Your task to perform on an android device: turn off javascript in the chrome app Image 0: 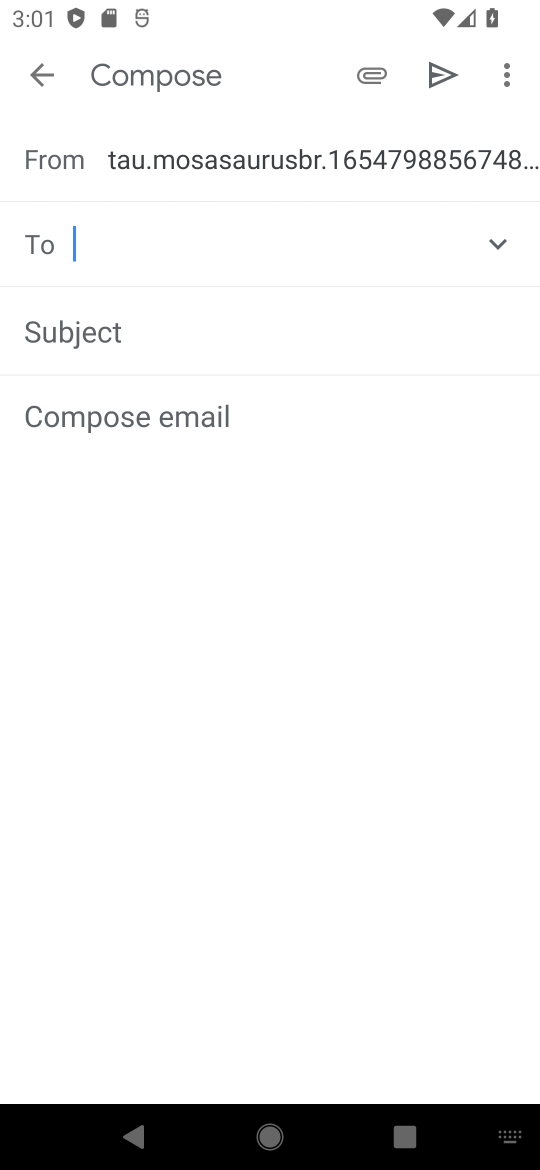
Step 0: press home button
Your task to perform on an android device: turn off javascript in the chrome app Image 1: 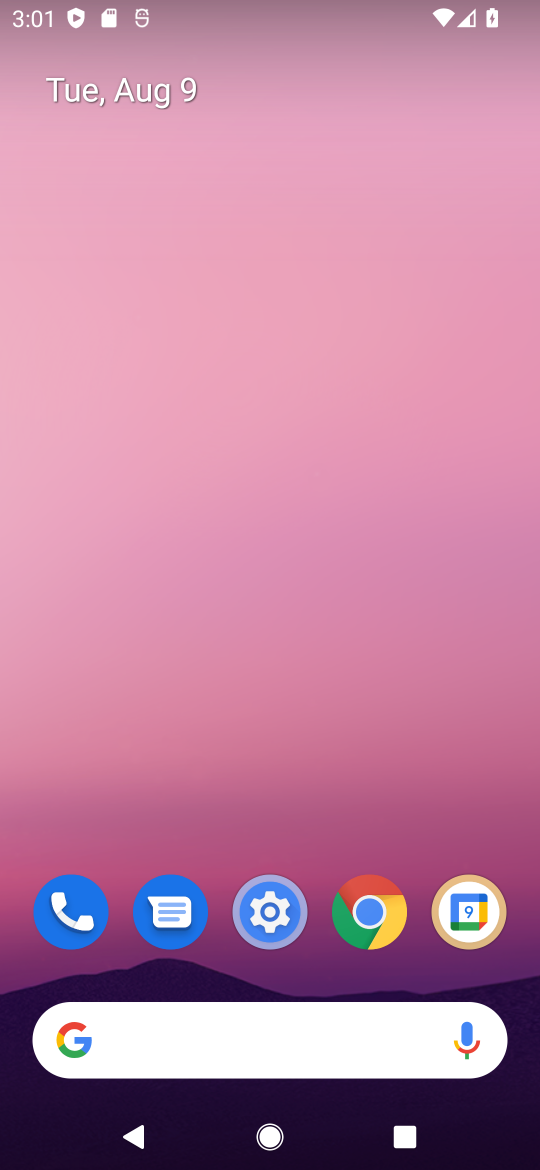
Step 1: click (359, 913)
Your task to perform on an android device: turn off javascript in the chrome app Image 2: 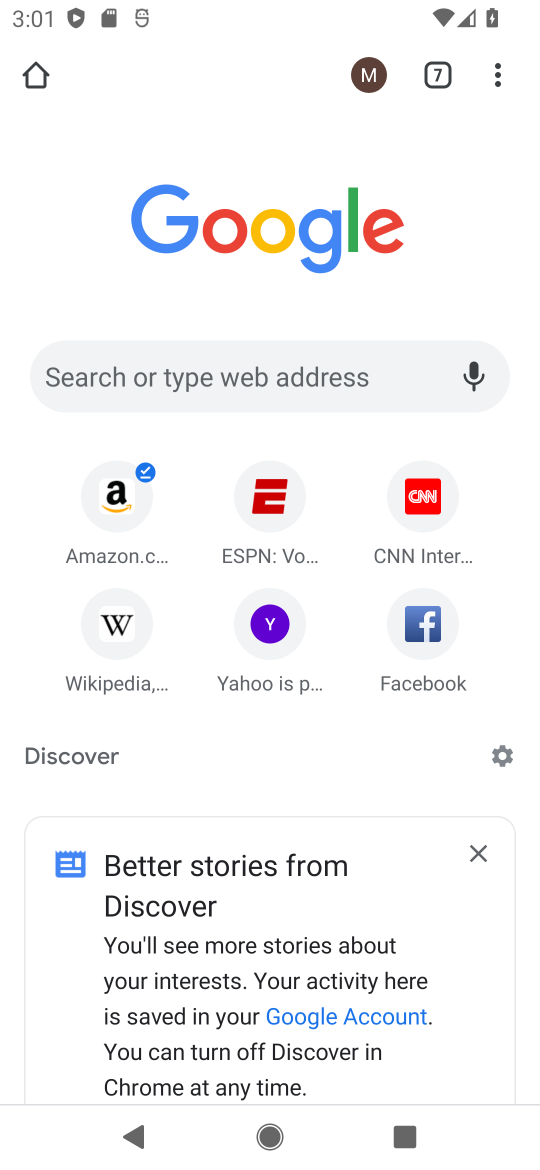
Step 2: click (496, 74)
Your task to perform on an android device: turn off javascript in the chrome app Image 3: 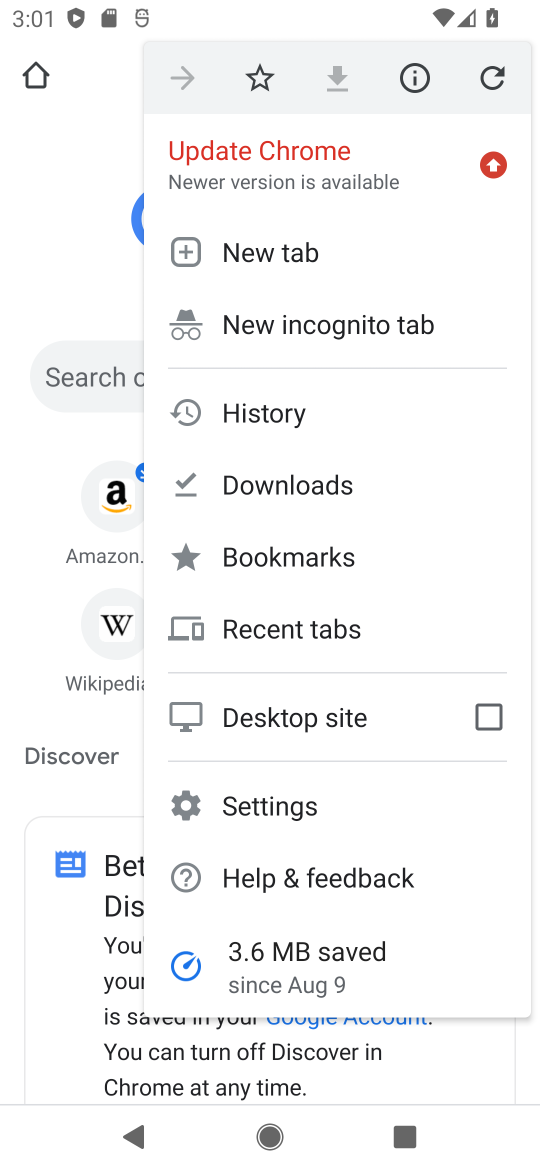
Step 3: click (276, 800)
Your task to perform on an android device: turn off javascript in the chrome app Image 4: 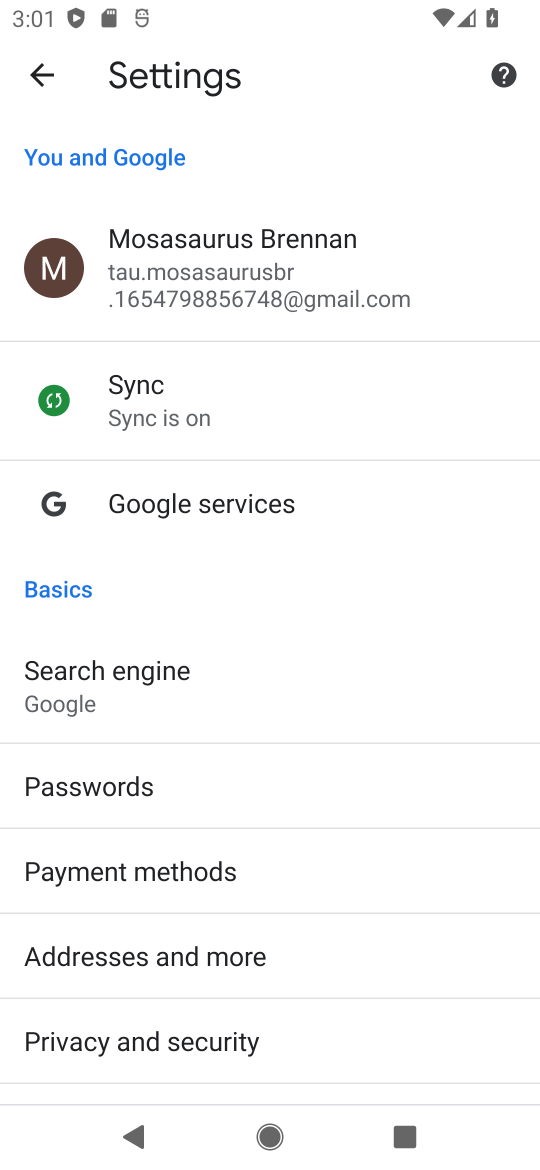
Step 4: drag from (322, 952) to (297, 369)
Your task to perform on an android device: turn off javascript in the chrome app Image 5: 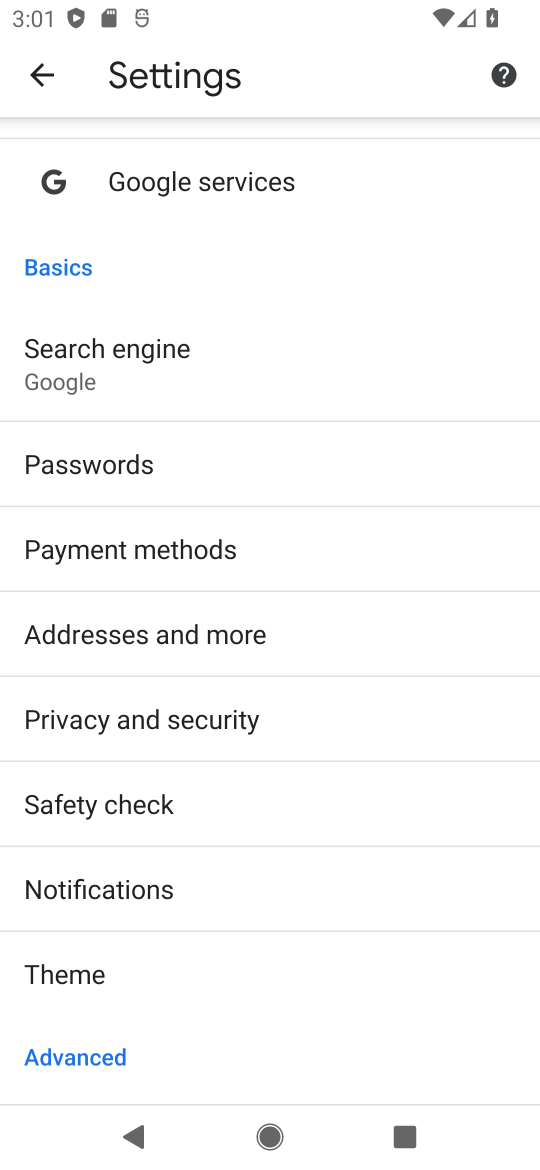
Step 5: drag from (308, 956) to (268, 330)
Your task to perform on an android device: turn off javascript in the chrome app Image 6: 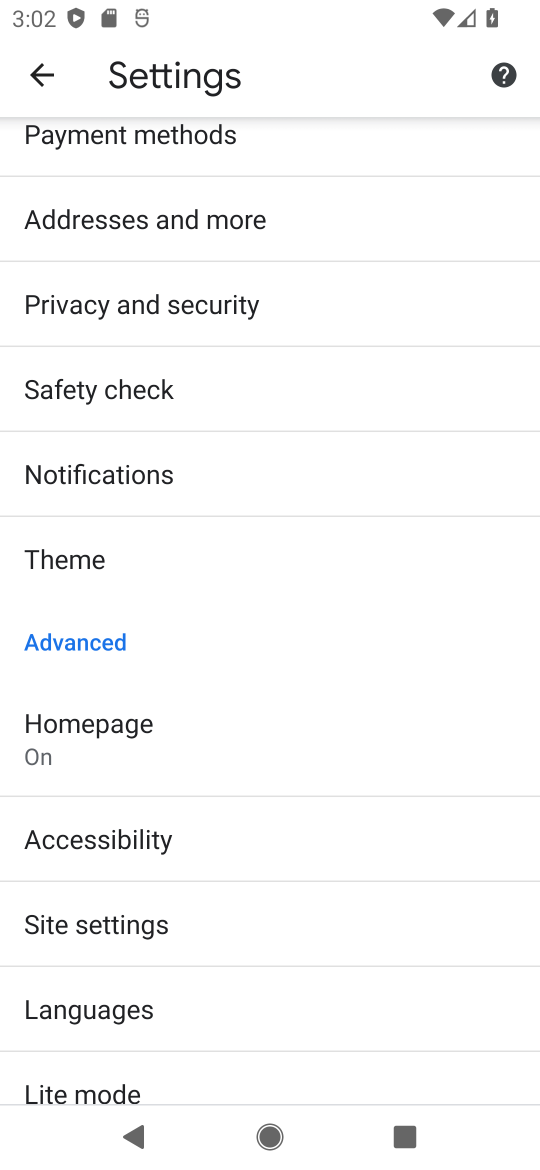
Step 6: click (126, 926)
Your task to perform on an android device: turn off javascript in the chrome app Image 7: 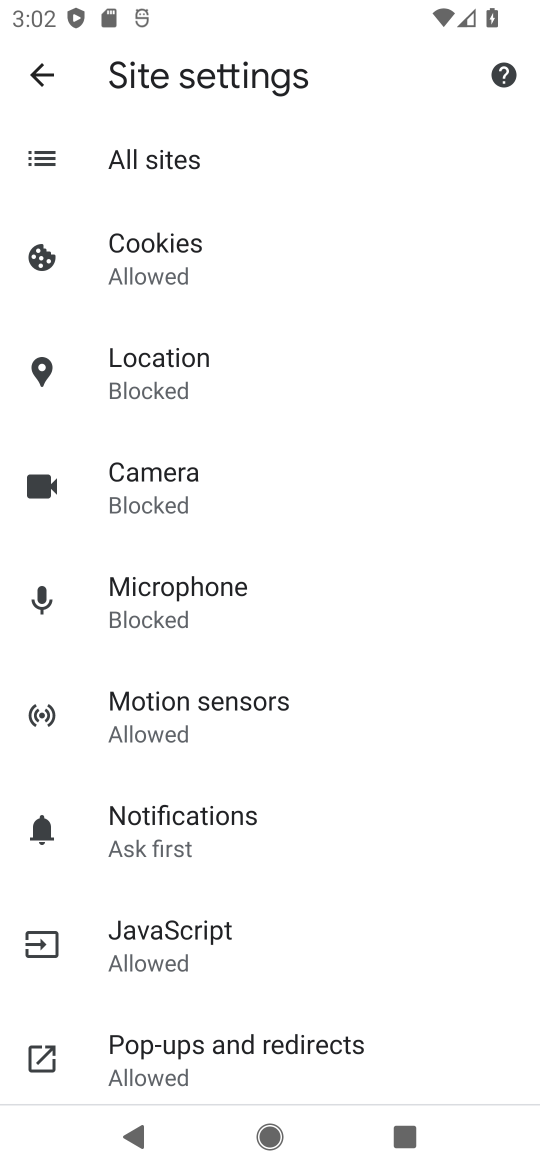
Step 7: click (185, 926)
Your task to perform on an android device: turn off javascript in the chrome app Image 8: 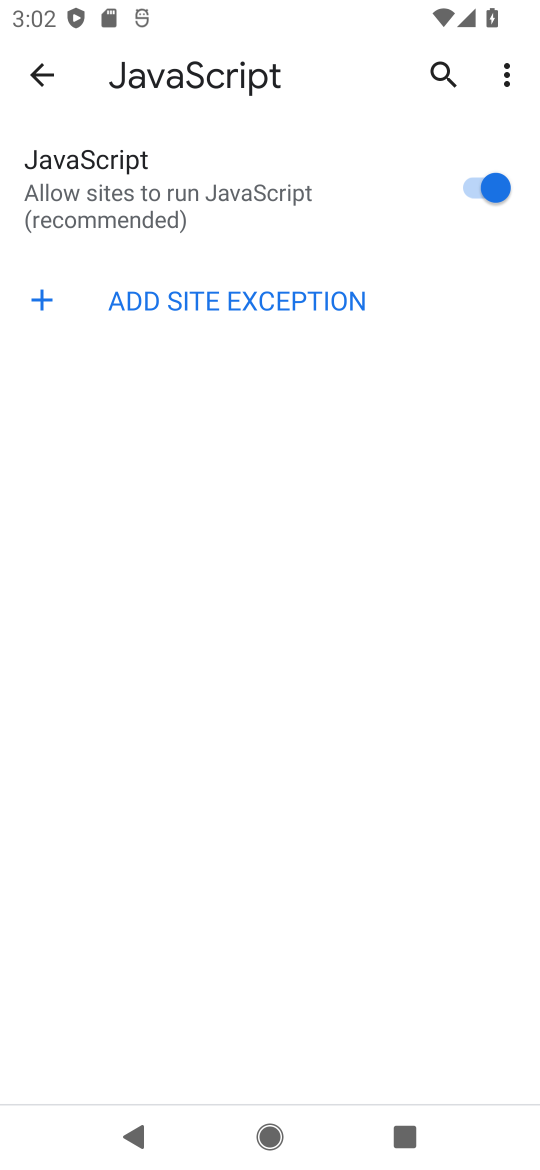
Step 8: click (489, 179)
Your task to perform on an android device: turn off javascript in the chrome app Image 9: 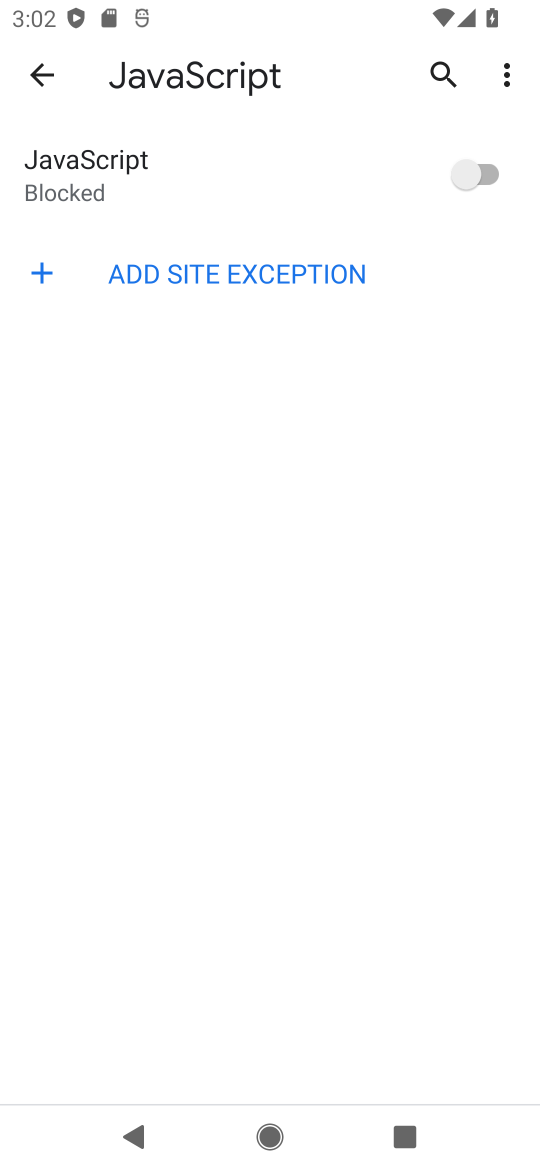
Step 9: task complete